Your task to perform on an android device: find photos in the google photos app Image 0: 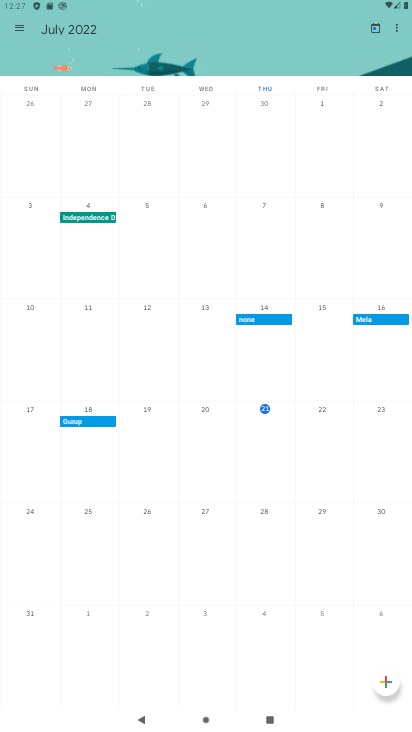
Step 0: press home button
Your task to perform on an android device: find photos in the google photos app Image 1: 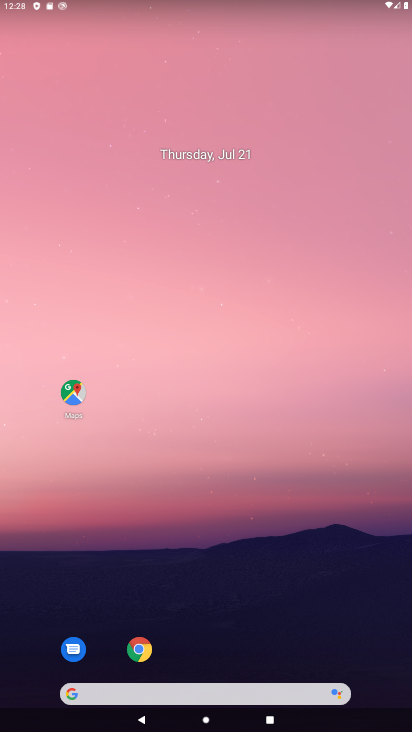
Step 1: task complete